Your task to perform on an android device: Is it going to rain this weekend? Image 0: 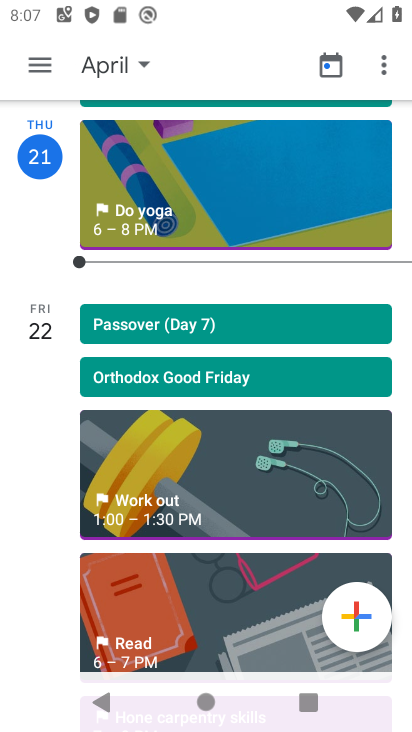
Step 0: press home button
Your task to perform on an android device: Is it going to rain this weekend? Image 1: 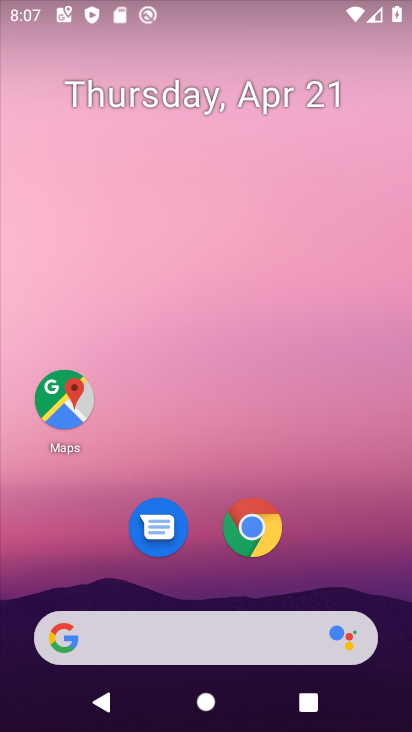
Step 1: drag from (220, 614) to (368, 0)
Your task to perform on an android device: Is it going to rain this weekend? Image 2: 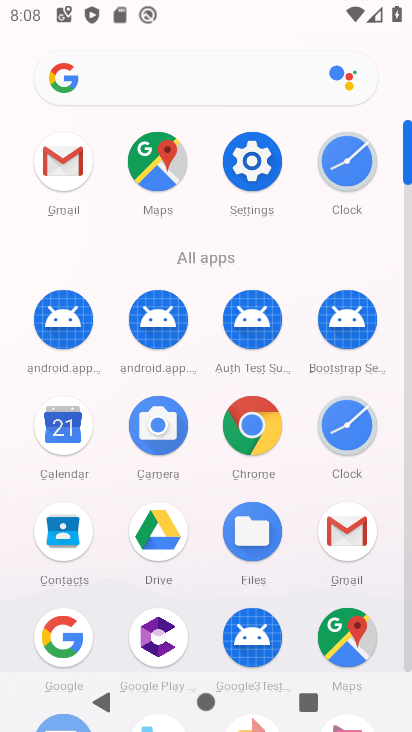
Step 2: click (67, 639)
Your task to perform on an android device: Is it going to rain this weekend? Image 3: 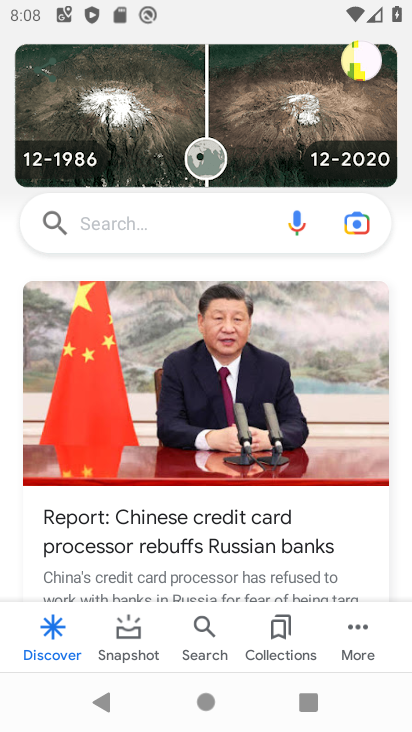
Step 3: drag from (350, 267) to (356, 433)
Your task to perform on an android device: Is it going to rain this weekend? Image 4: 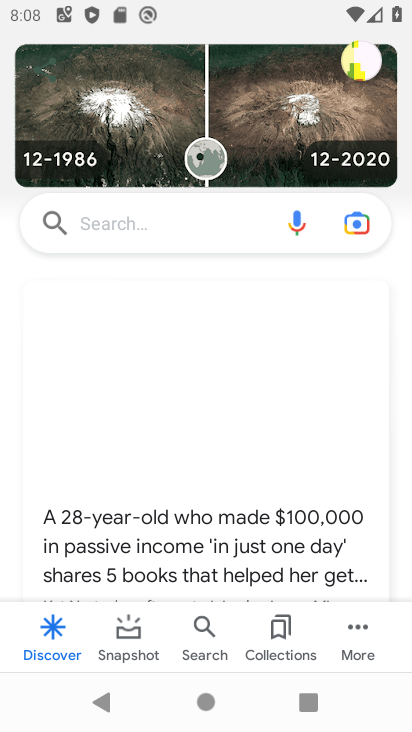
Step 4: click (207, 222)
Your task to perform on an android device: Is it going to rain this weekend? Image 5: 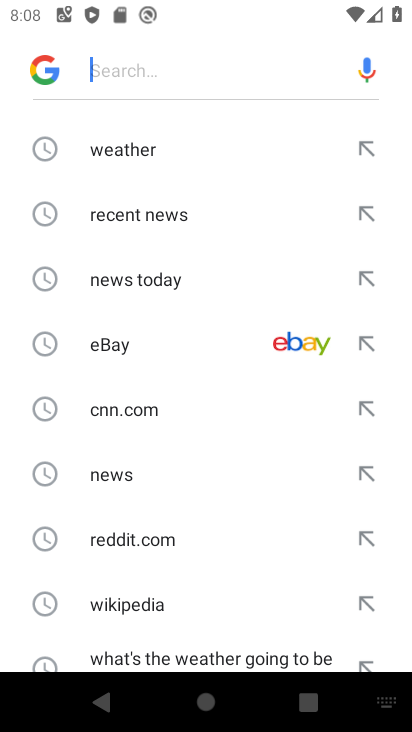
Step 5: click (189, 144)
Your task to perform on an android device: Is it going to rain this weekend? Image 6: 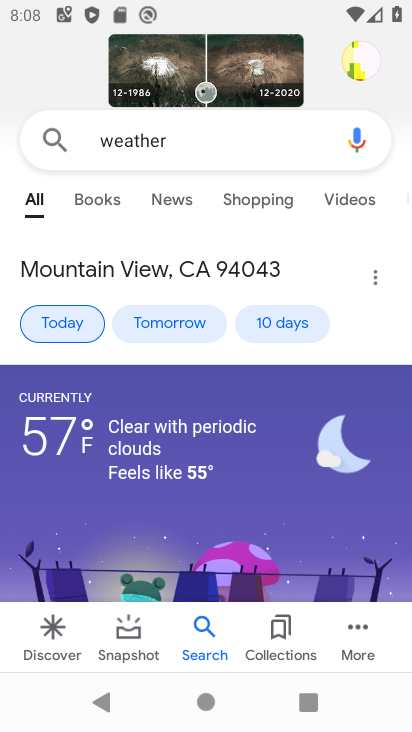
Step 6: click (310, 320)
Your task to perform on an android device: Is it going to rain this weekend? Image 7: 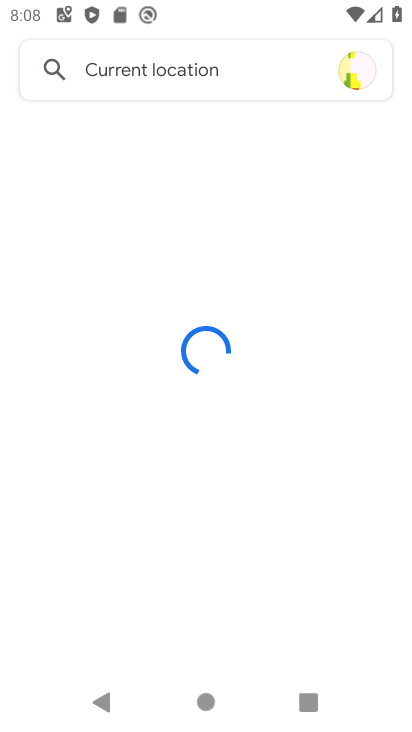
Step 7: click (309, 323)
Your task to perform on an android device: Is it going to rain this weekend? Image 8: 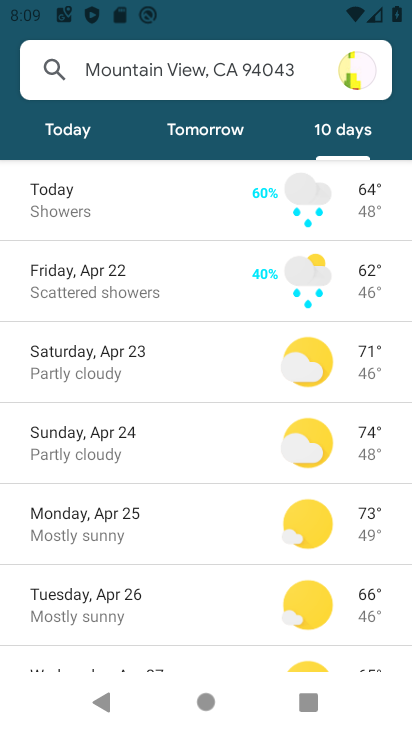
Step 8: task complete